Your task to perform on an android device: turn off location Image 0: 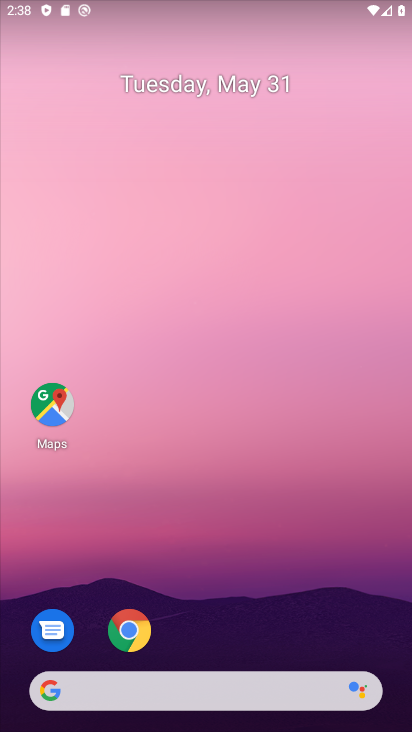
Step 0: drag from (186, 618) to (167, 140)
Your task to perform on an android device: turn off location Image 1: 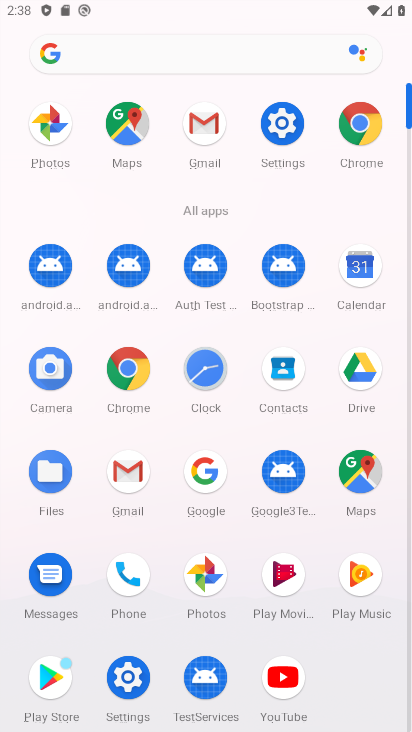
Step 1: click (291, 92)
Your task to perform on an android device: turn off location Image 2: 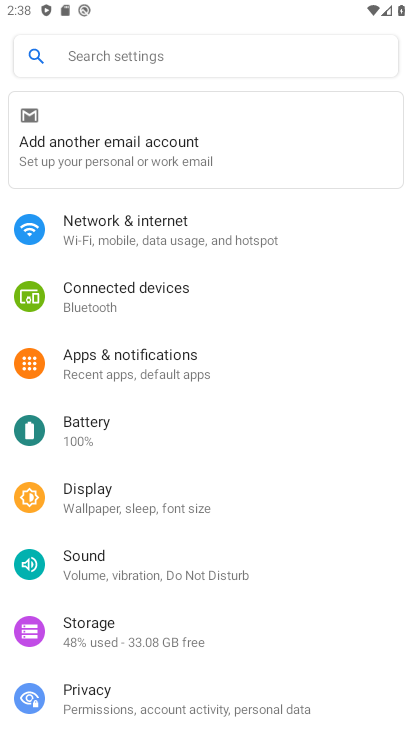
Step 2: drag from (131, 655) to (166, 234)
Your task to perform on an android device: turn off location Image 3: 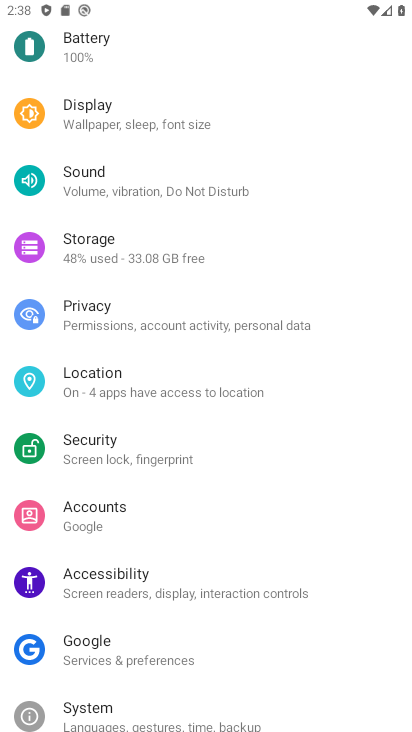
Step 3: click (100, 382)
Your task to perform on an android device: turn off location Image 4: 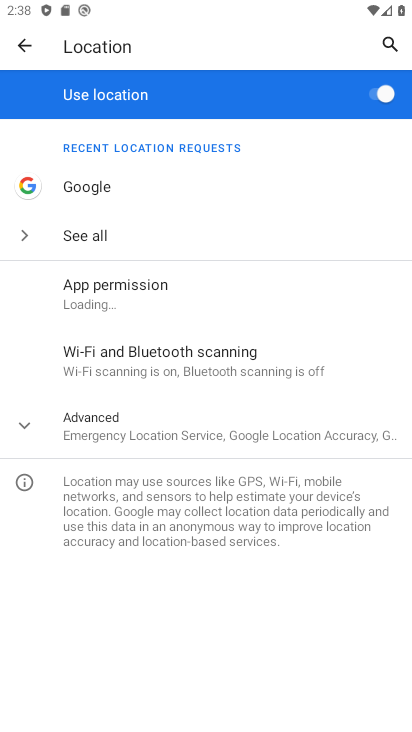
Step 4: click (384, 90)
Your task to perform on an android device: turn off location Image 5: 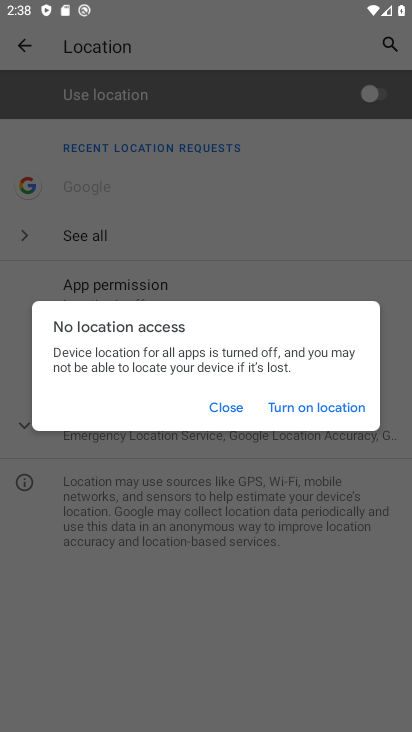
Step 5: task complete